Your task to perform on an android device: Go to Android settings Image 0: 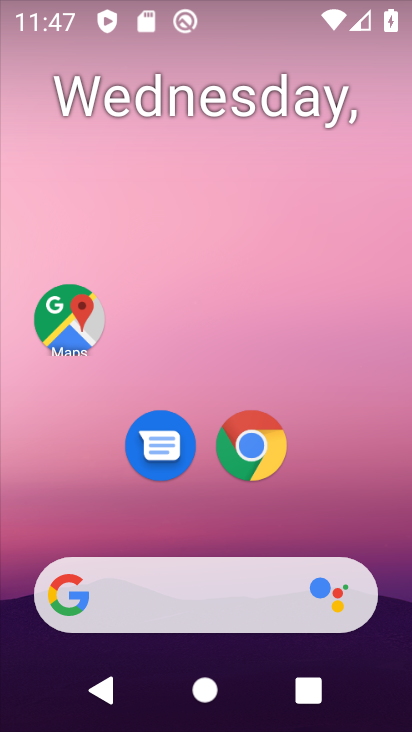
Step 0: drag from (365, 510) to (325, 89)
Your task to perform on an android device: Go to Android settings Image 1: 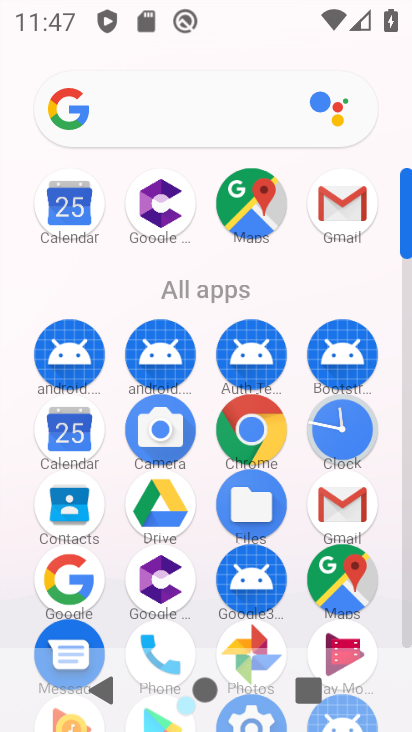
Step 1: drag from (295, 585) to (315, 246)
Your task to perform on an android device: Go to Android settings Image 2: 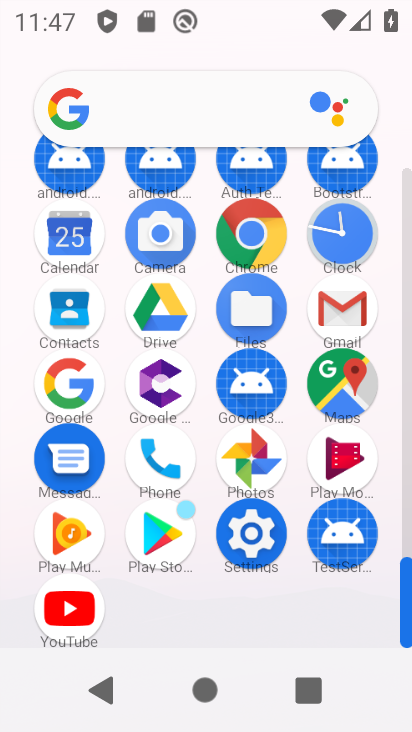
Step 2: click (252, 550)
Your task to perform on an android device: Go to Android settings Image 3: 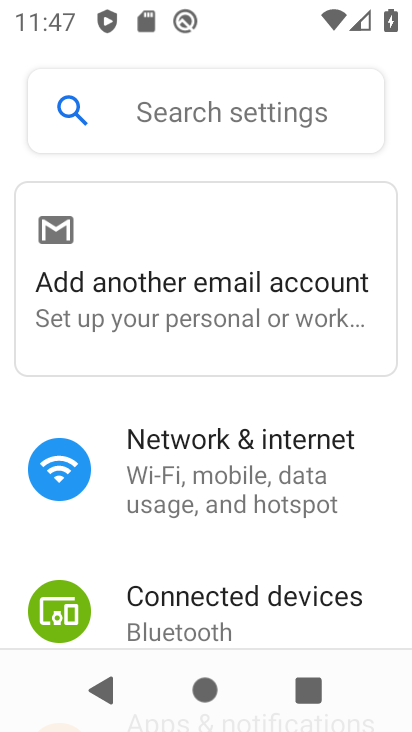
Step 3: task complete